Your task to perform on an android device: Open Google Chrome and click the shortcut for Amazon.com Image 0: 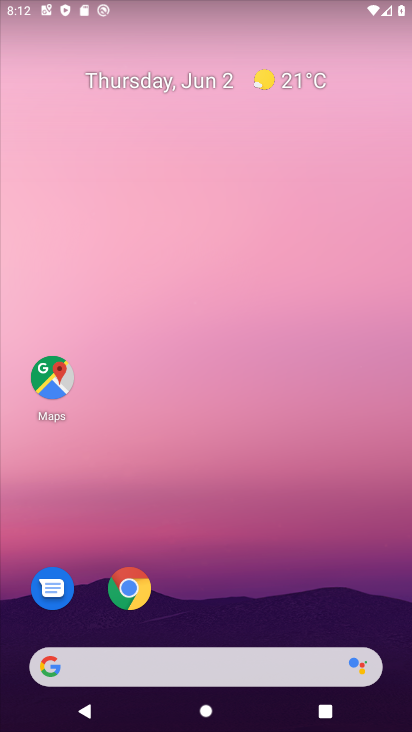
Step 0: drag from (176, 460) to (181, 399)
Your task to perform on an android device: Open Google Chrome and click the shortcut for Amazon.com Image 1: 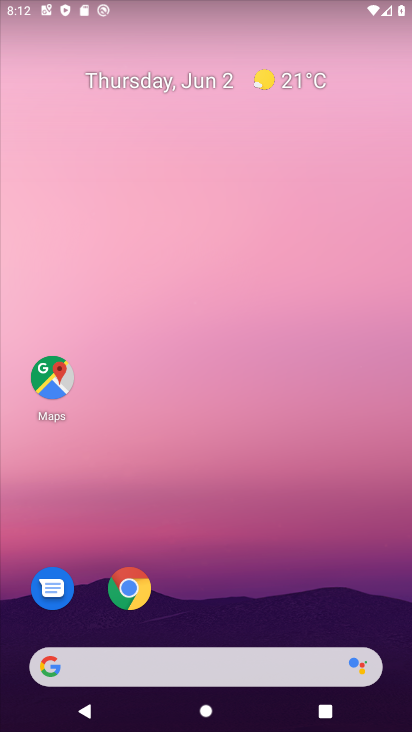
Step 1: drag from (243, 481) to (249, 432)
Your task to perform on an android device: Open Google Chrome and click the shortcut for Amazon.com Image 2: 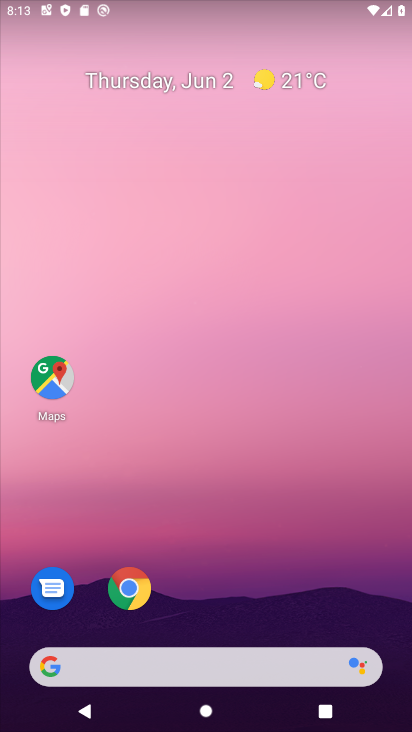
Step 2: drag from (215, 596) to (258, 112)
Your task to perform on an android device: Open Google Chrome and click the shortcut for Amazon.com Image 3: 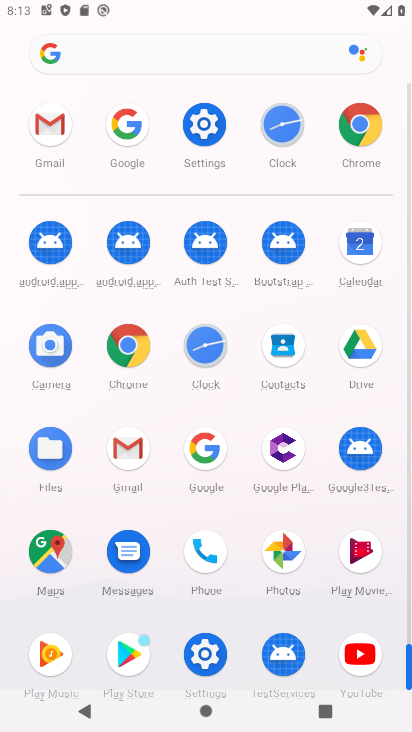
Step 3: click (368, 143)
Your task to perform on an android device: Open Google Chrome and click the shortcut for Amazon.com Image 4: 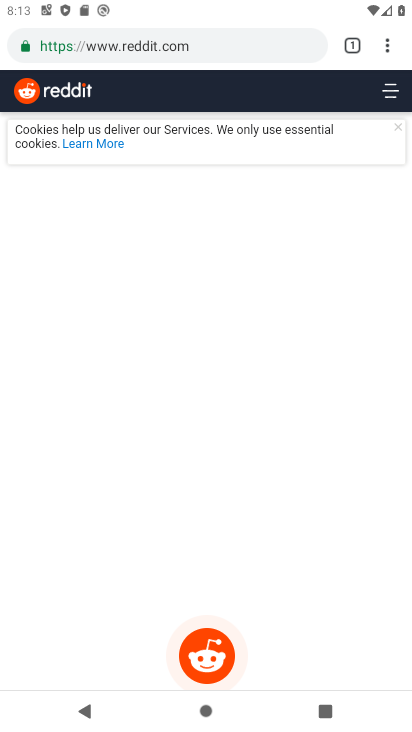
Step 4: click (251, 42)
Your task to perform on an android device: Open Google Chrome and click the shortcut for Amazon.com Image 5: 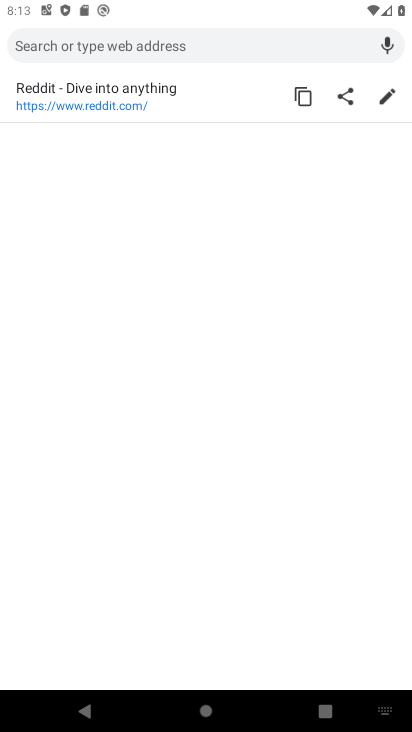
Step 5: type "amazon"
Your task to perform on an android device: Open Google Chrome and click the shortcut for Amazon.com Image 6: 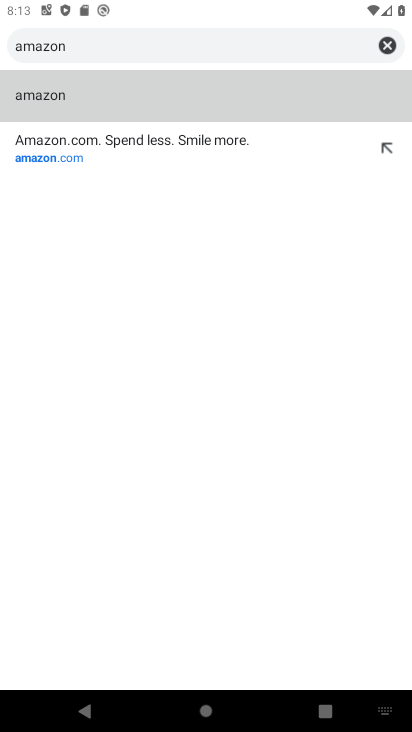
Step 6: click (134, 153)
Your task to perform on an android device: Open Google Chrome and click the shortcut for Amazon.com Image 7: 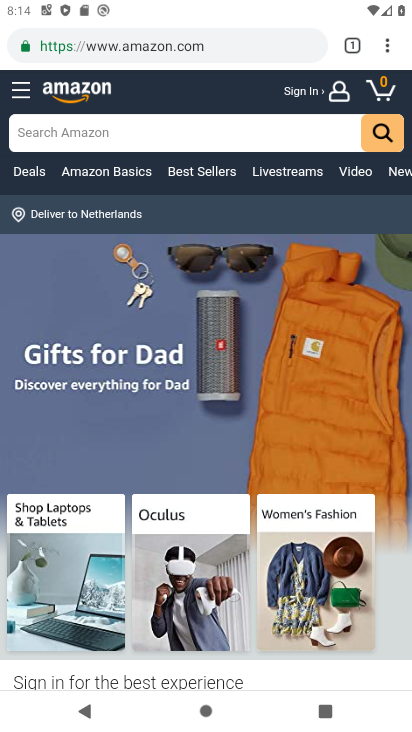
Step 7: task complete